Your task to perform on an android device: change notifications settings Image 0: 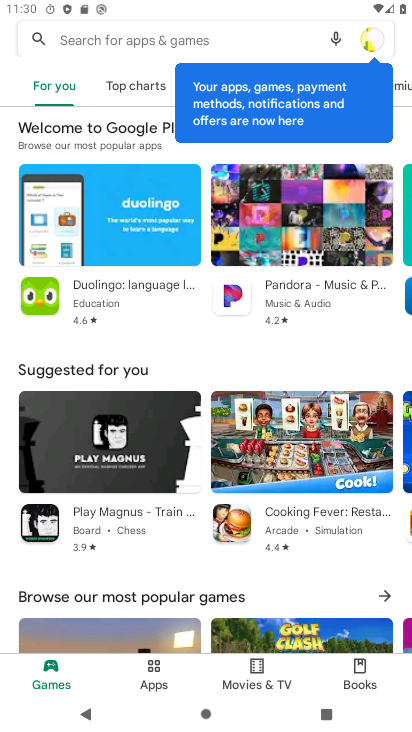
Step 0: press home button
Your task to perform on an android device: change notifications settings Image 1: 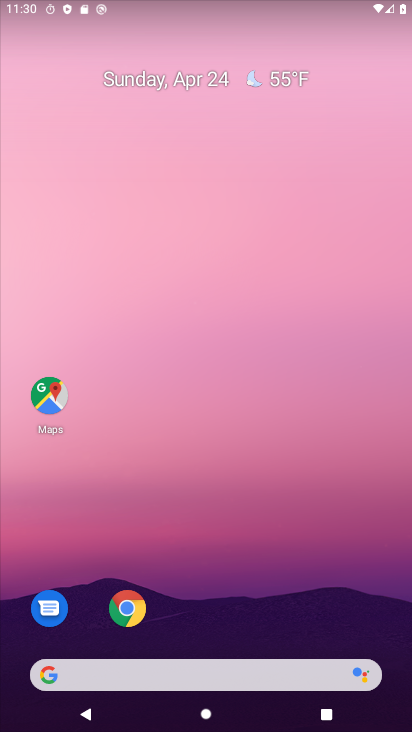
Step 1: drag from (240, 525) to (276, 57)
Your task to perform on an android device: change notifications settings Image 2: 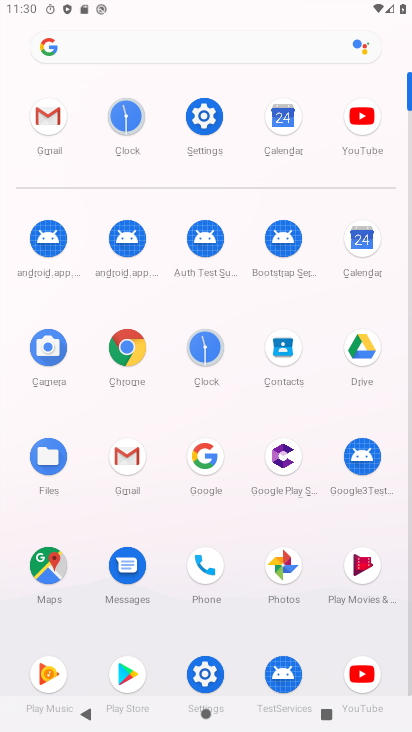
Step 2: click (206, 114)
Your task to perform on an android device: change notifications settings Image 3: 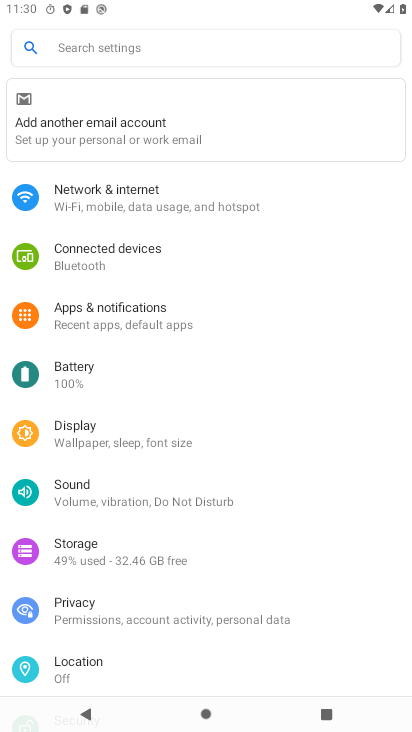
Step 3: click (148, 320)
Your task to perform on an android device: change notifications settings Image 4: 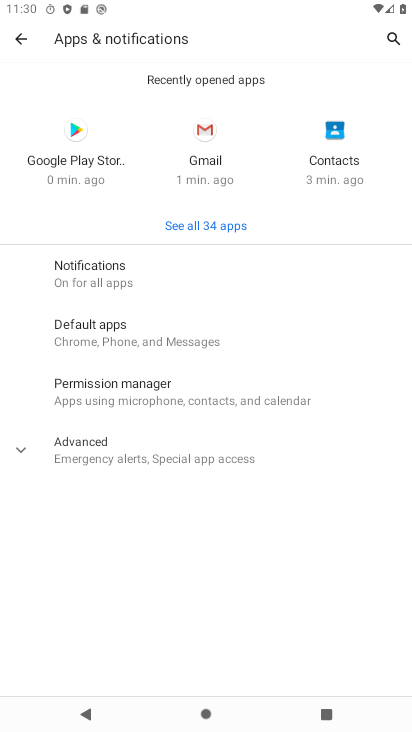
Step 4: click (153, 257)
Your task to perform on an android device: change notifications settings Image 5: 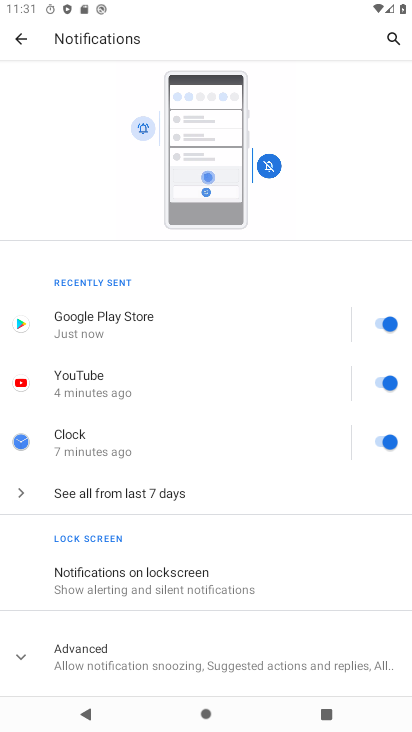
Step 5: click (170, 652)
Your task to perform on an android device: change notifications settings Image 6: 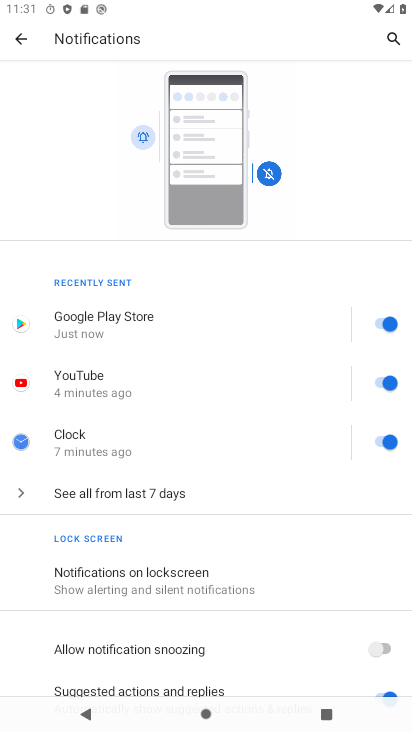
Step 6: drag from (226, 646) to (277, 298)
Your task to perform on an android device: change notifications settings Image 7: 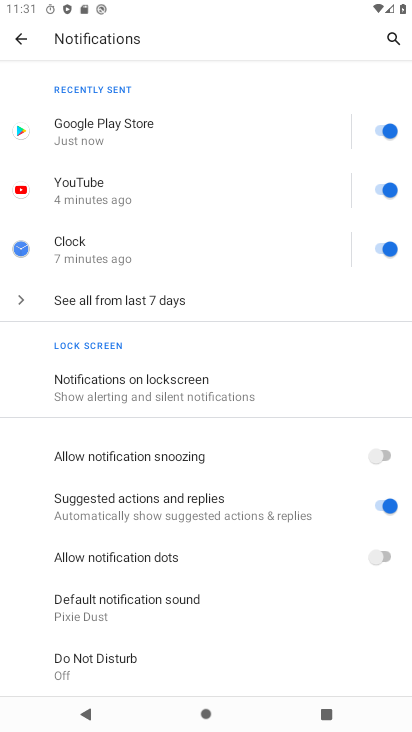
Step 7: click (387, 459)
Your task to perform on an android device: change notifications settings Image 8: 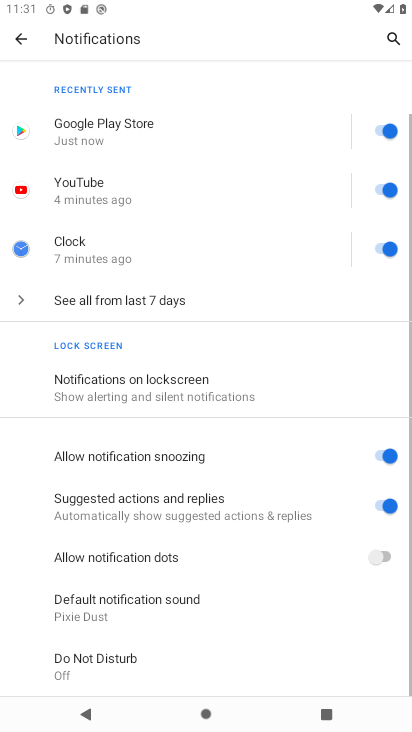
Step 8: task complete